Your task to perform on an android device: Clear the shopping cart on walmart. Search for "razer blackwidow" on walmart, select the first entry, and add it to the cart. Image 0: 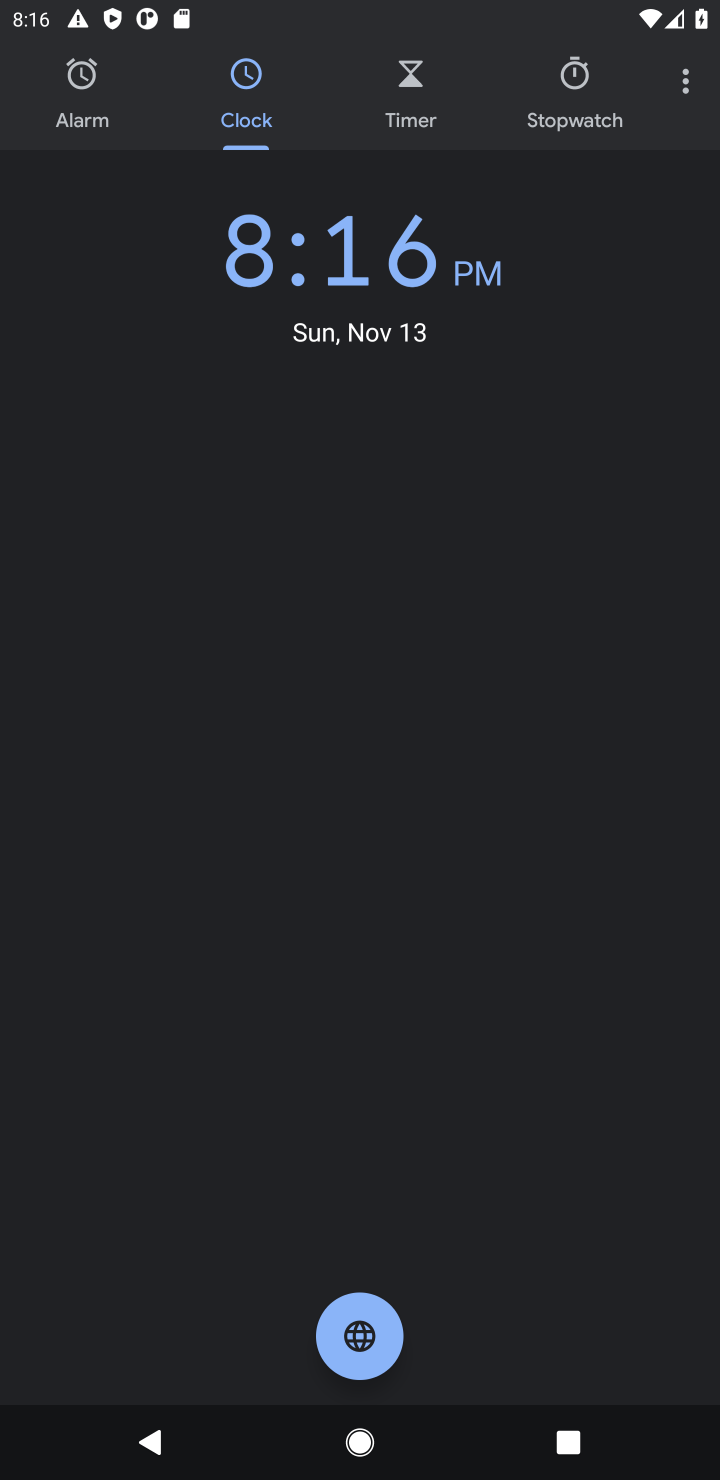
Step 0: press home button
Your task to perform on an android device: Clear the shopping cart on walmart. Search for "razer blackwidow" on walmart, select the first entry, and add it to the cart. Image 1: 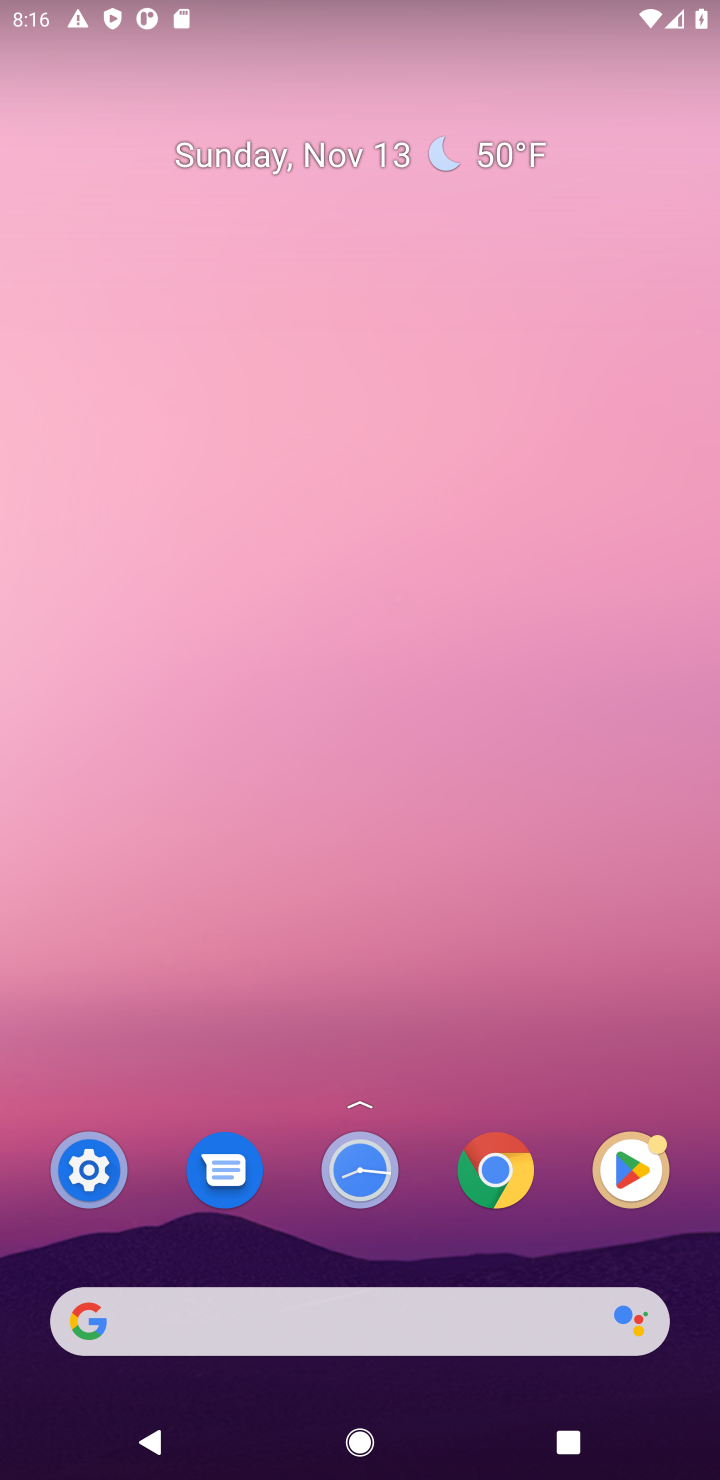
Step 1: click (389, 1337)
Your task to perform on an android device: Clear the shopping cart on walmart. Search for "razer blackwidow" on walmart, select the first entry, and add it to the cart. Image 2: 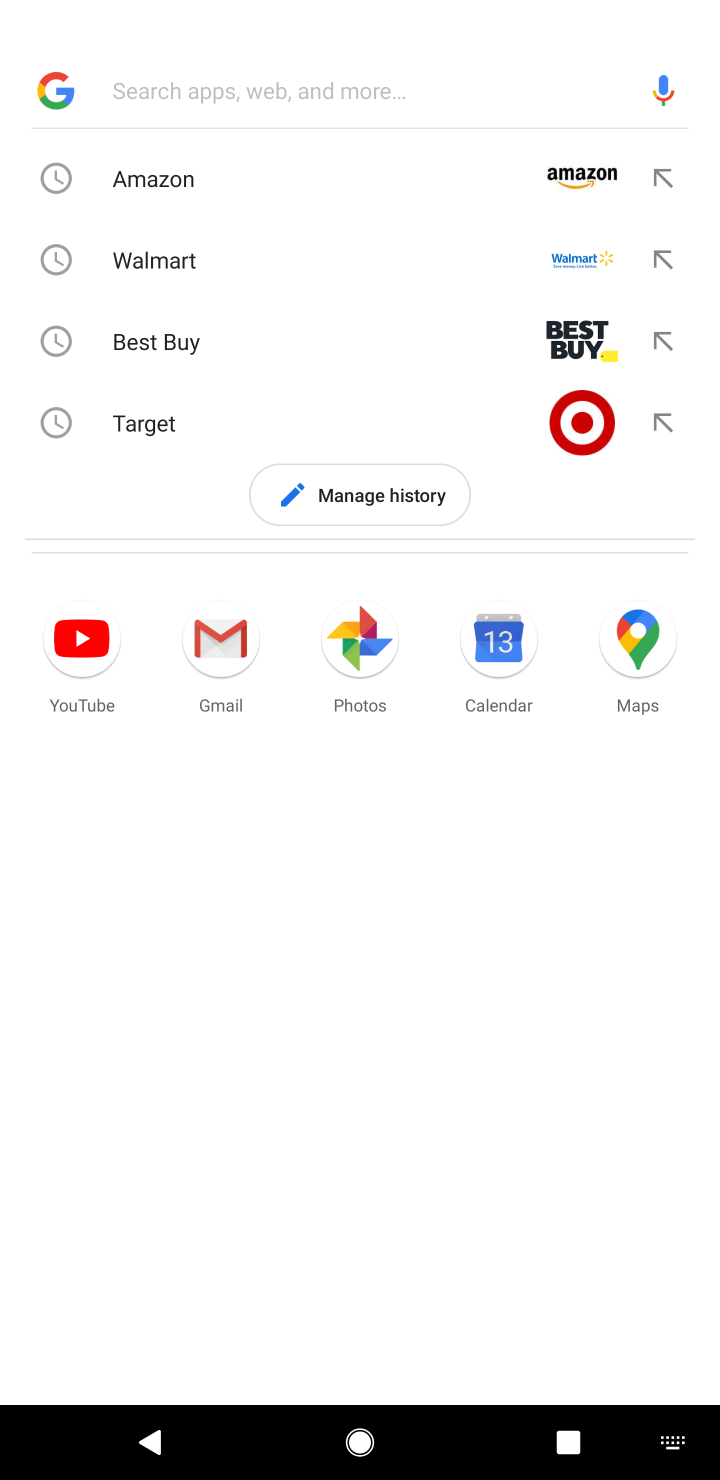
Step 2: type "walmart"
Your task to perform on an android device: Clear the shopping cart on walmart. Search for "razer blackwidow" on walmart, select the first entry, and add it to the cart. Image 3: 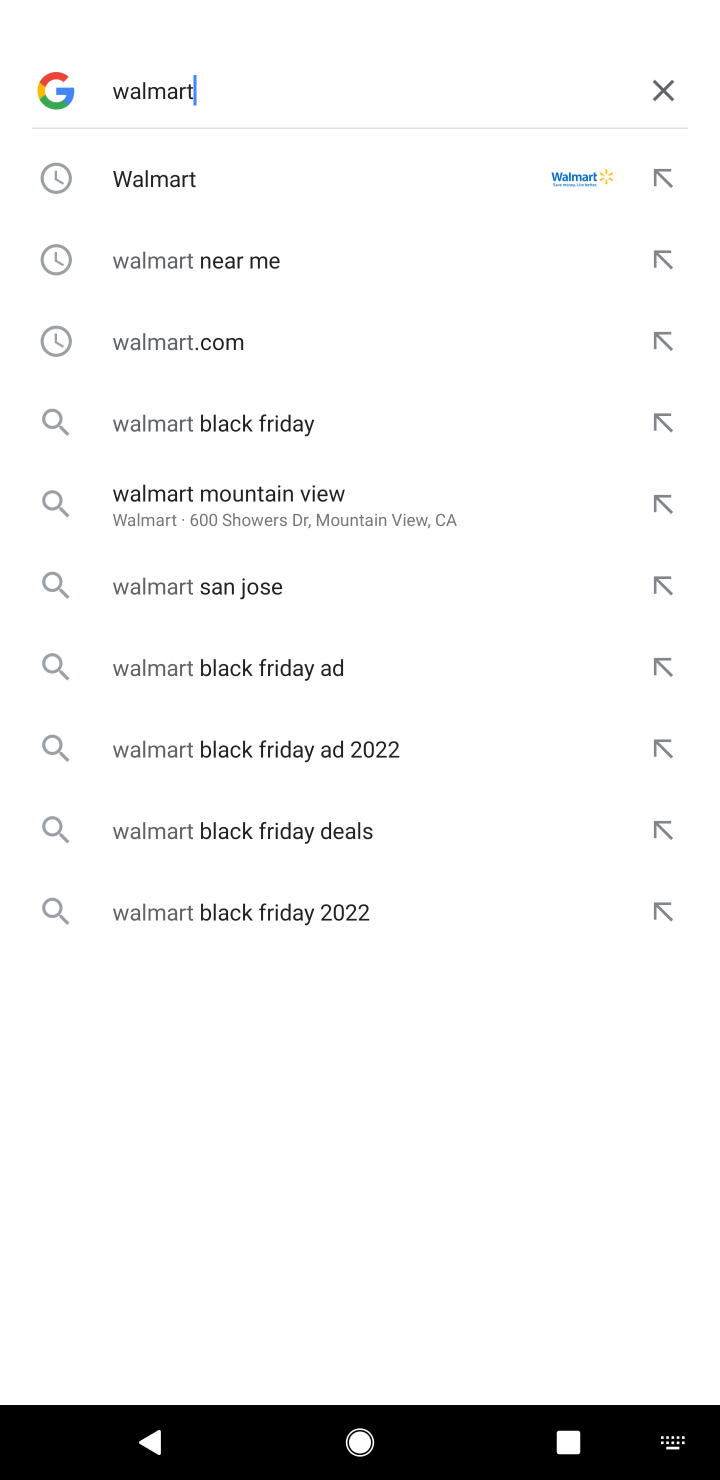
Step 3: click (250, 195)
Your task to perform on an android device: Clear the shopping cart on walmart. Search for "razer blackwidow" on walmart, select the first entry, and add it to the cart. Image 4: 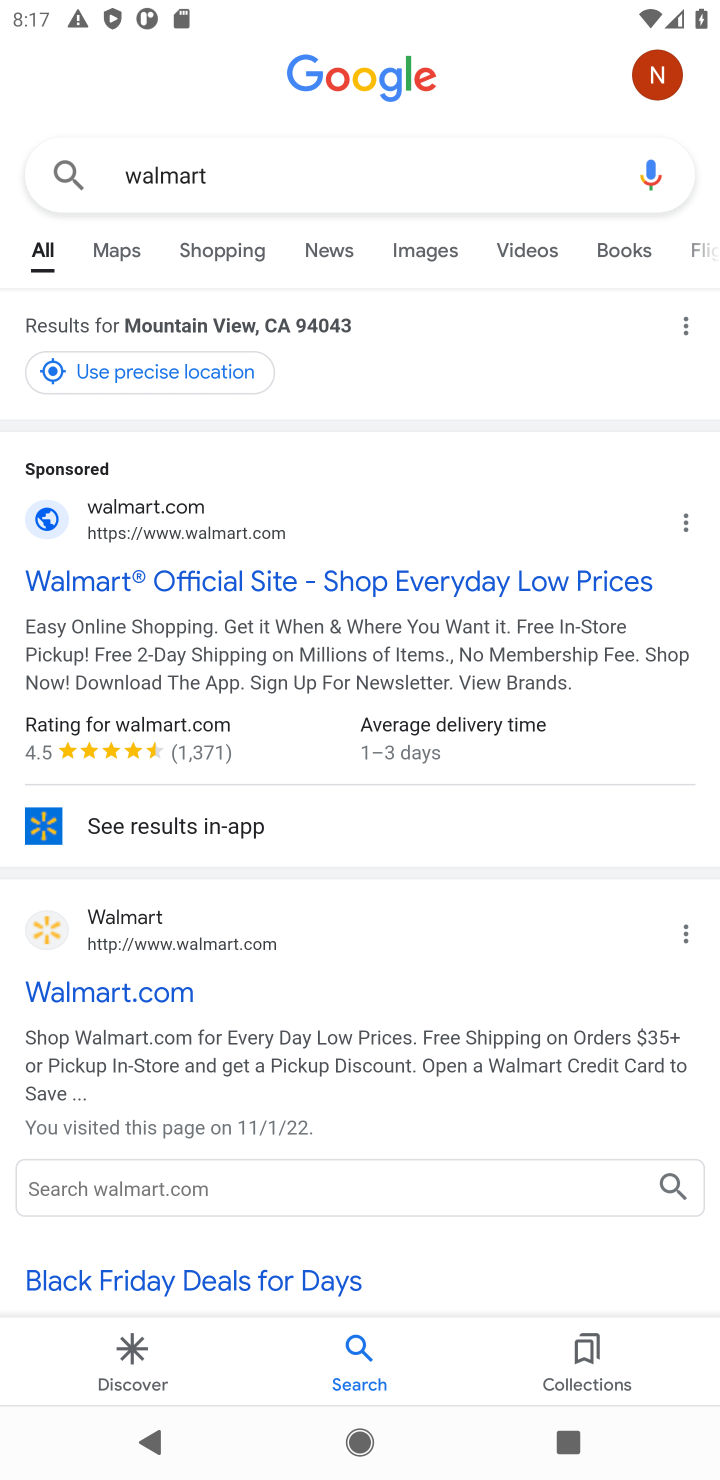
Step 4: click (171, 593)
Your task to perform on an android device: Clear the shopping cart on walmart. Search for "razer blackwidow" on walmart, select the first entry, and add it to the cart. Image 5: 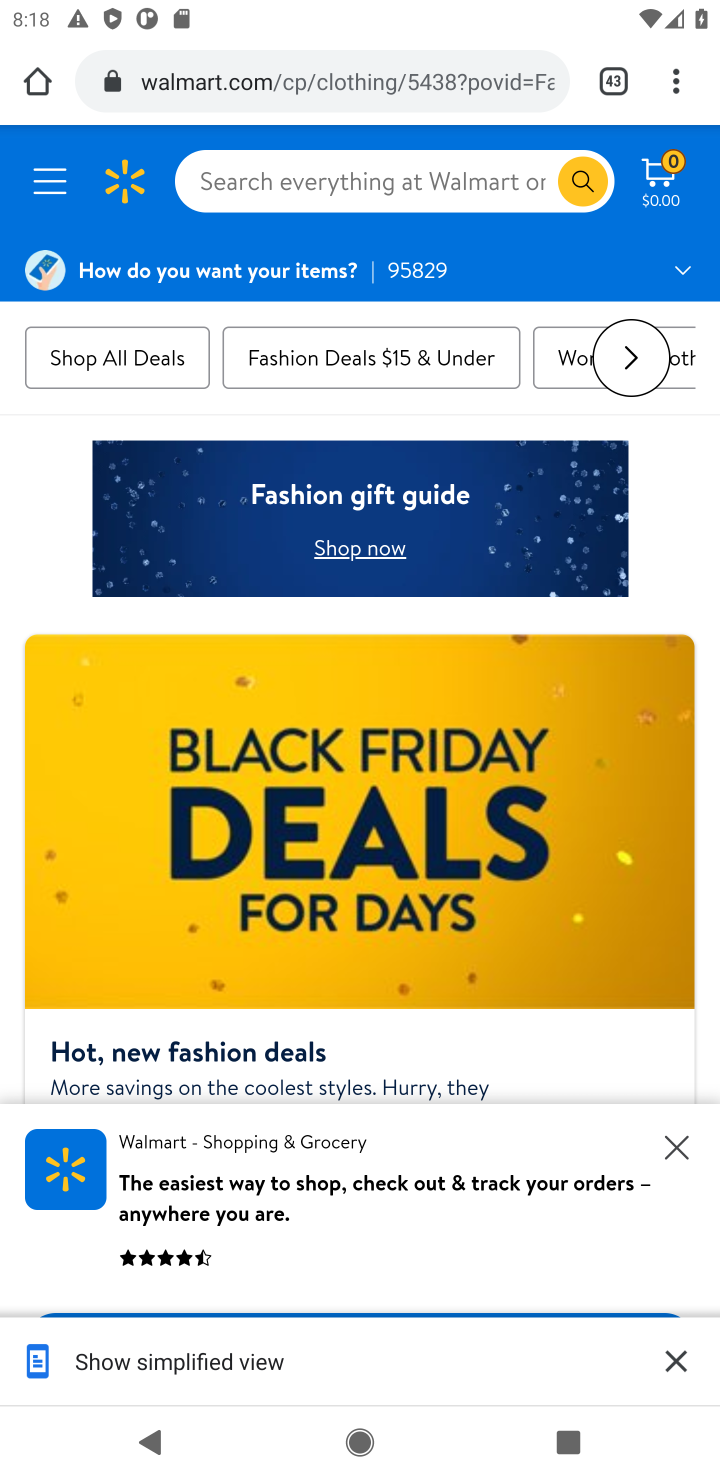
Step 5: task complete